Your task to perform on an android device: Open CNN.com Image 0: 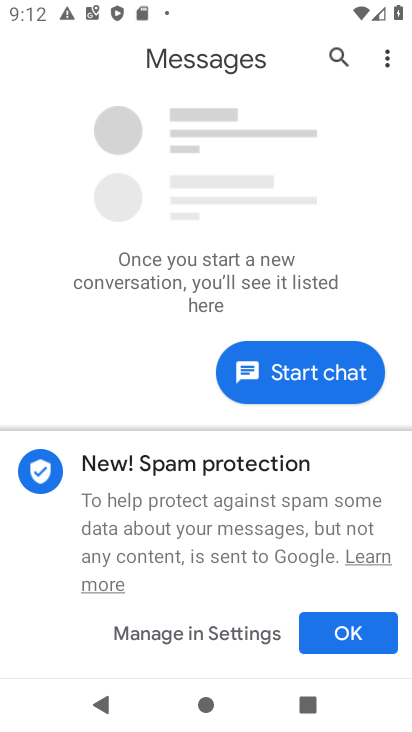
Step 0: press home button
Your task to perform on an android device: Open CNN.com Image 1: 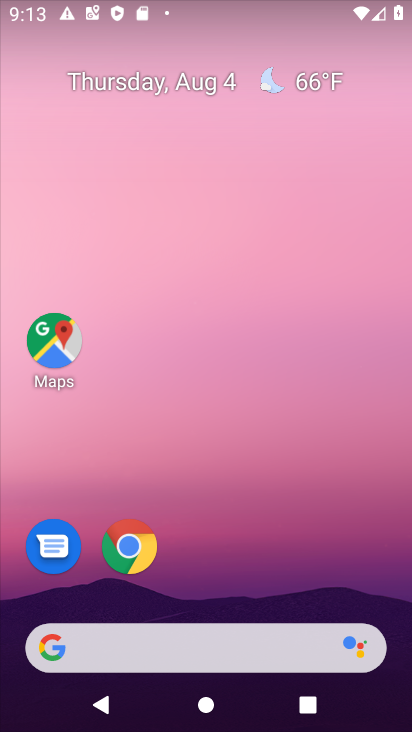
Step 1: click (47, 646)
Your task to perform on an android device: Open CNN.com Image 2: 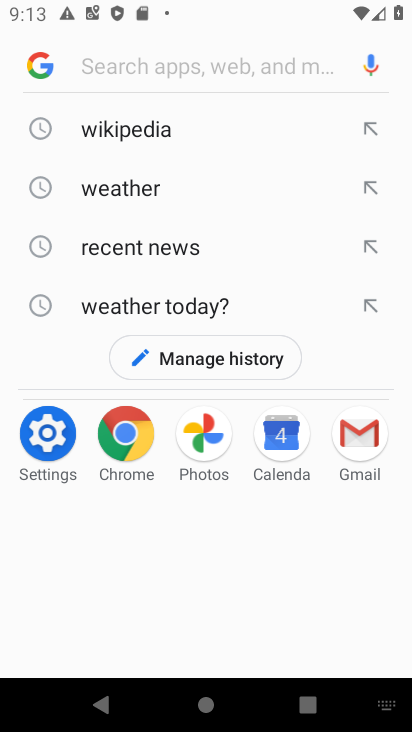
Step 2: type "CNN.com"
Your task to perform on an android device: Open CNN.com Image 3: 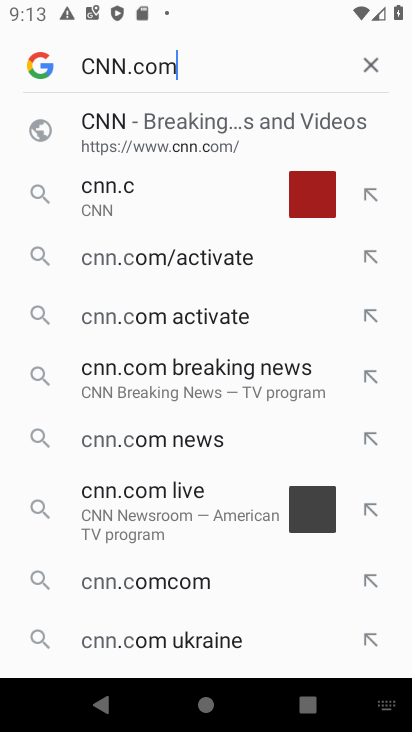
Step 3: press enter
Your task to perform on an android device: Open CNN.com Image 4: 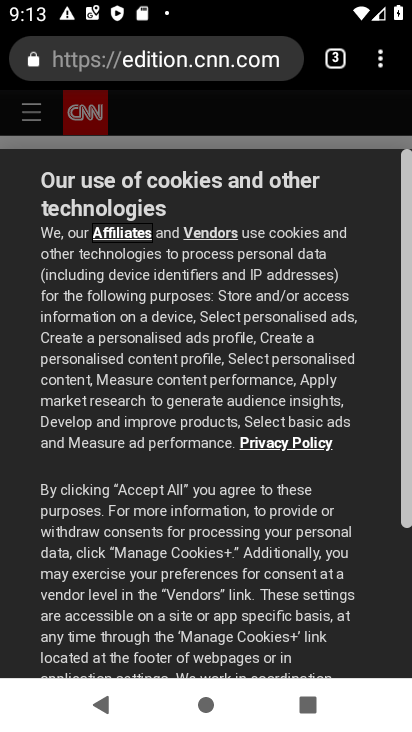
Step 4: task complete